Your task to perform on an android device: Open Chrome and go to the settings page Image 0: 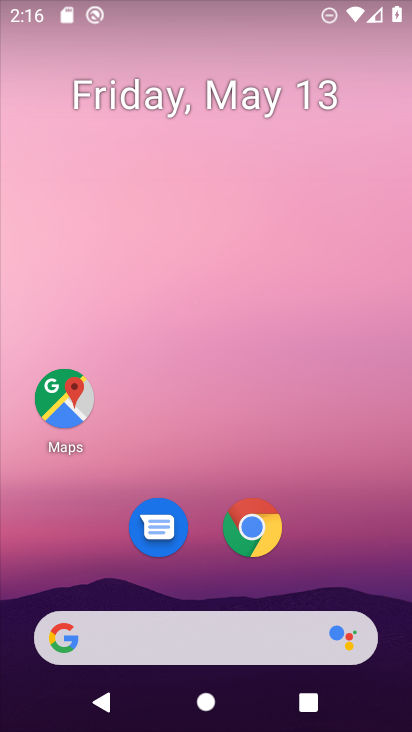
Step 0: drag from (335, 548) to (336, 102)
Your task to perform on an android device: Open Chrome and go to the settings page Image 1: 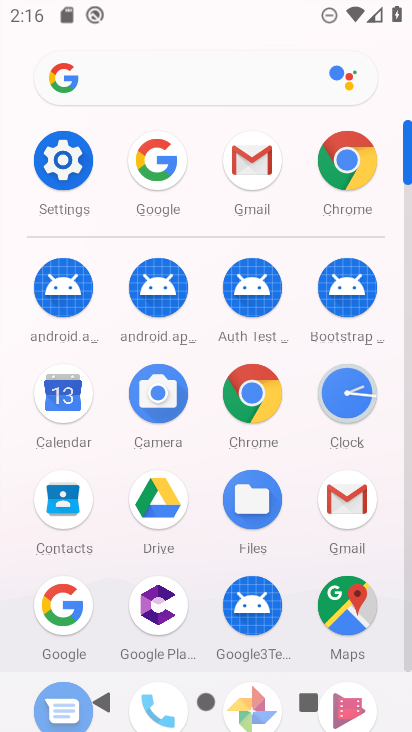
Step 1: click (346, 161)
Your task to perform on an android device: Open Chrome and go to the settings page Image 2: 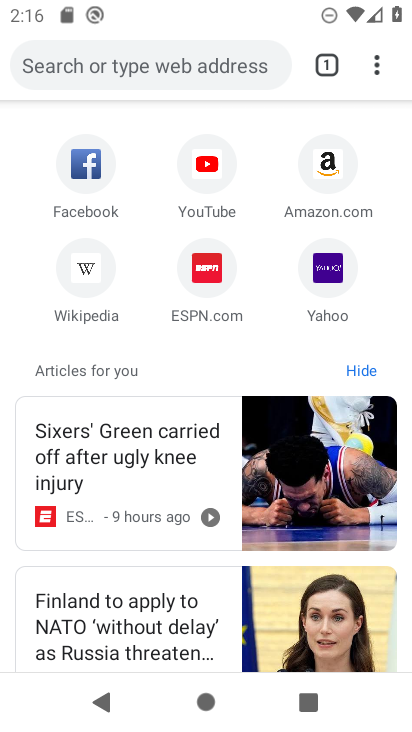
Step 2: task complete